Your task to perform on an android device: change the clock display to show seconds Image 0: 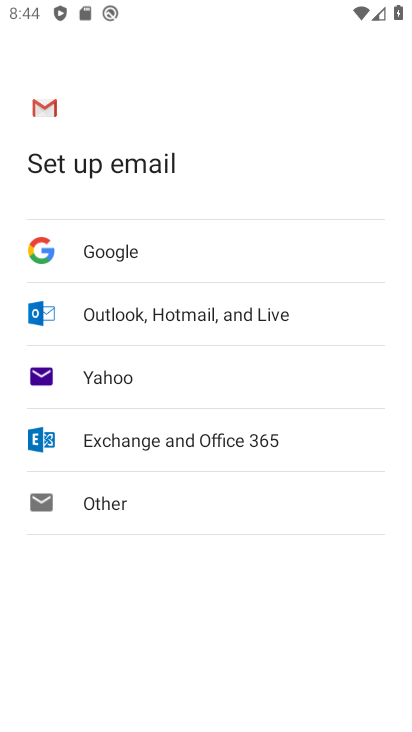
Step 0: press home button
Your task to perform on an android device: change the clock display to show seconds Image 1: 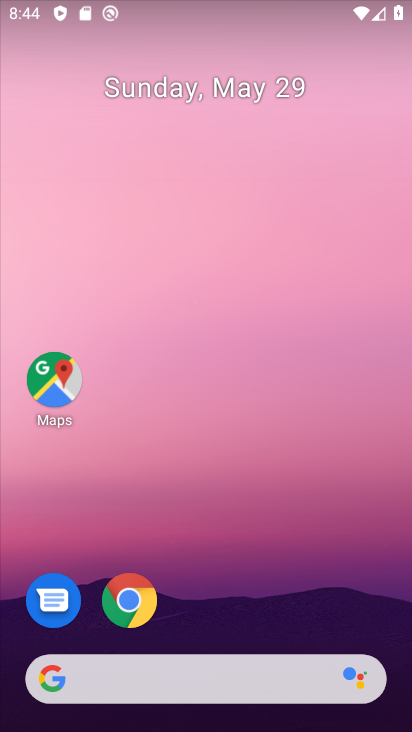
Step 1: drag from (201, 722) to (245, 8)
Your task to perform on an android device: change the clock display to show seconds Image 2: 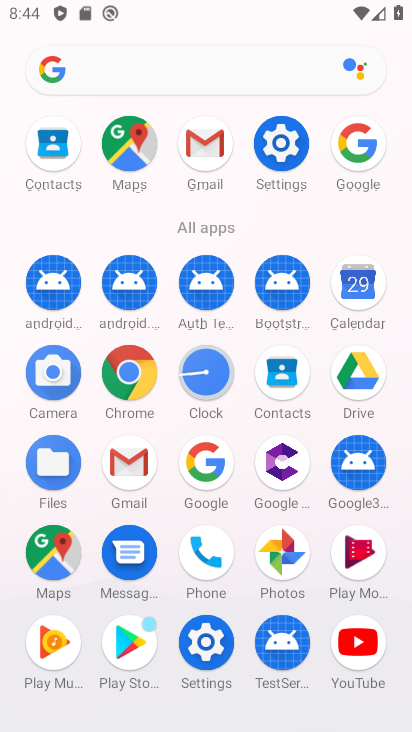
Step 2: click (196, 362)
Your task to perform on an android device: change the clock display to show seconds Image 3: 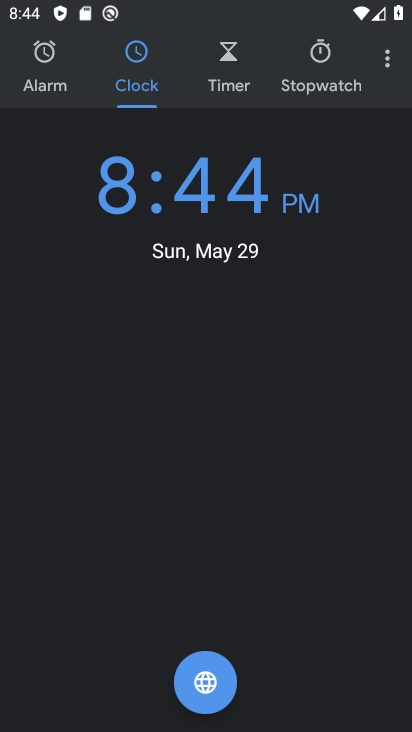
Step 3: click (388, 67)
Your task to perform on an android device: change the clock display to show seconds Image 4: 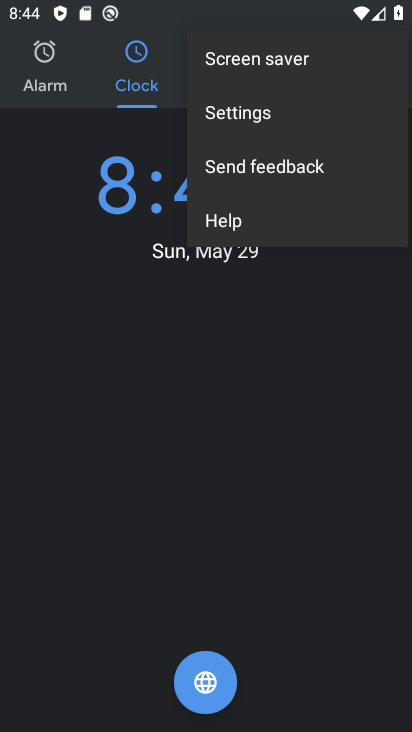
Step 4: click (271, 111)
Your task to perform on an android device: change the clock display to show seconds Image 5: 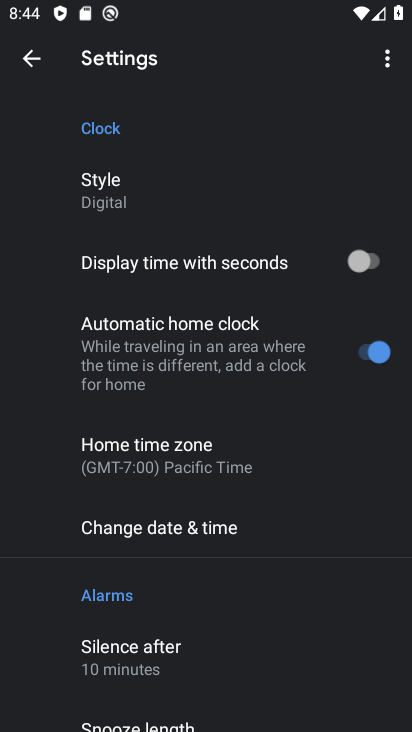
Step 5: click (380, 262)
Your task to perform on an android device: change the clock display to show seconds Image 6: 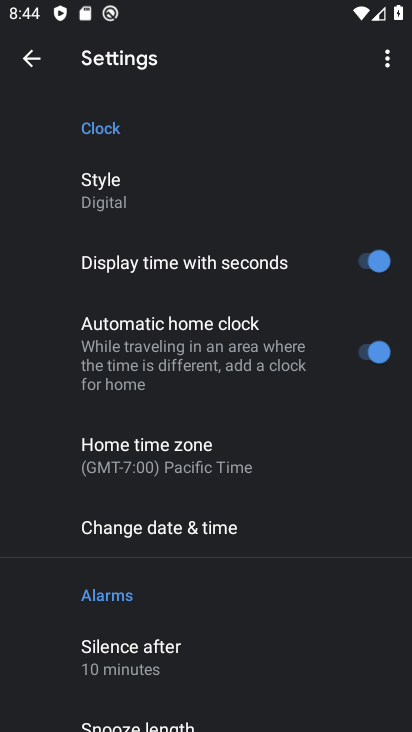
Step 6: task complete